Your task to perform on an android device: Open calendar and show me the first week of next month Image 0: 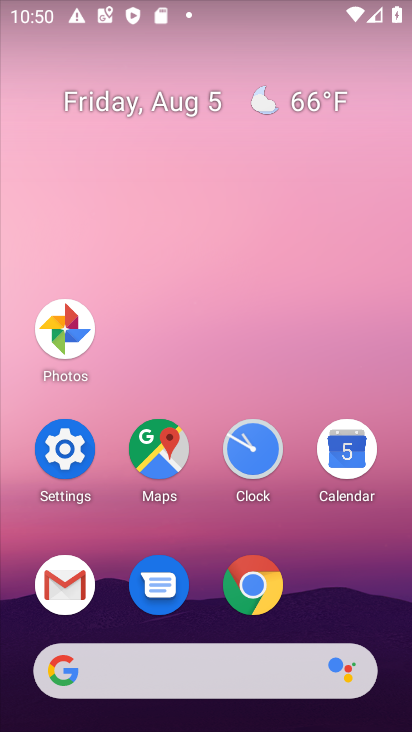
Step 0: click (353, 449)
Your task to perform on an android device: Open calendar and show me the first week of next month Image 1: 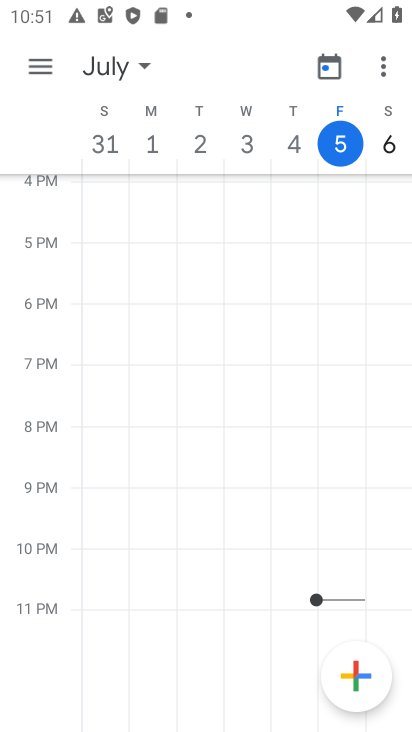
Step 1: click (137, 66)
Your task to perform on an android device: Open calendar and show me the first week of next month Image 2: 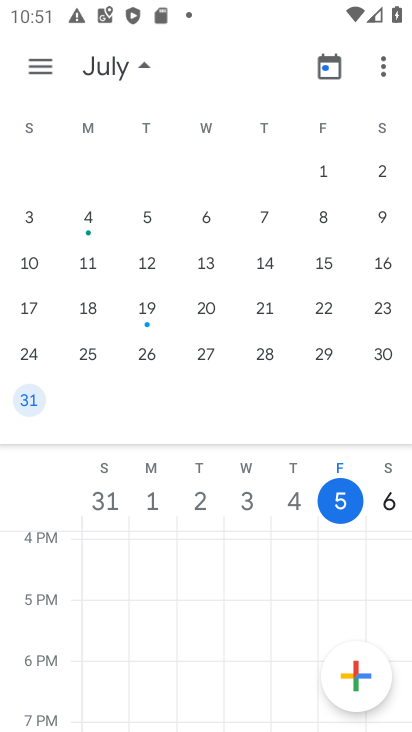
Step 2: drag from (384, 306) to (46, 248)
Your task to perform on an android device: Open calendar and show me the first week of next month Image 3: 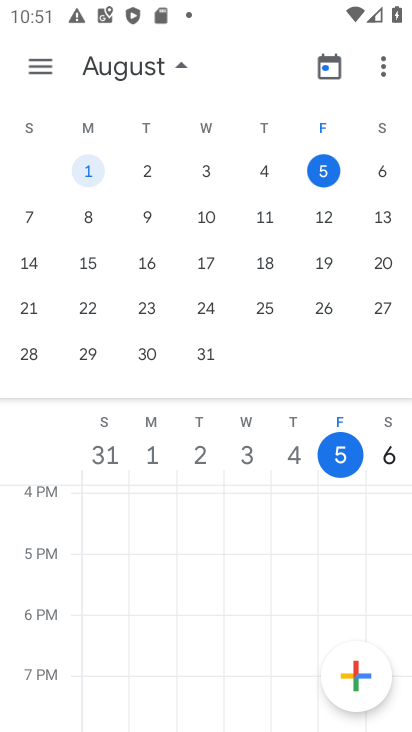
Step 3: drag from (316, 279) to (18, 218)
Your task to perform on an android device: Open calendar and show me the first week of next month Image 4: 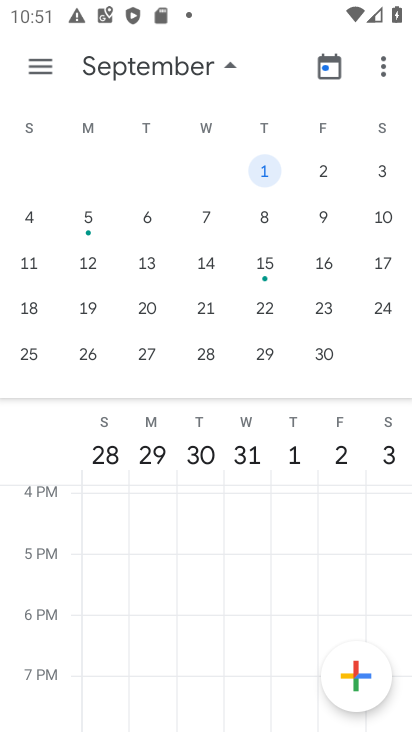
Step 4: click (269, 167)
Your task to perform on an android device: Open calendar and show me the first week of next month Image 5: 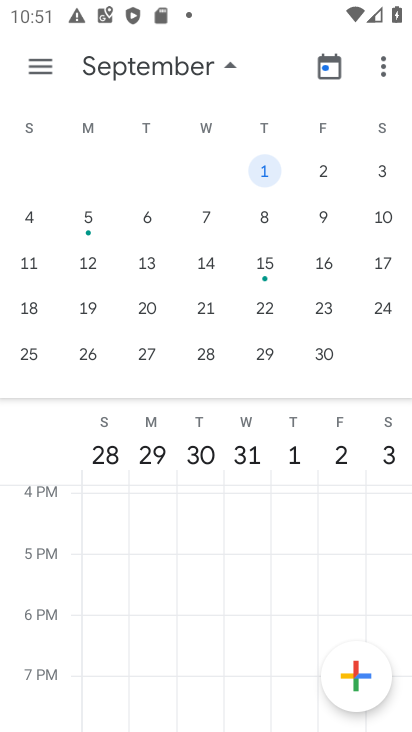
Step 5: task complete